Your task to perform on an android device: Toggle the flashlight Image 0: 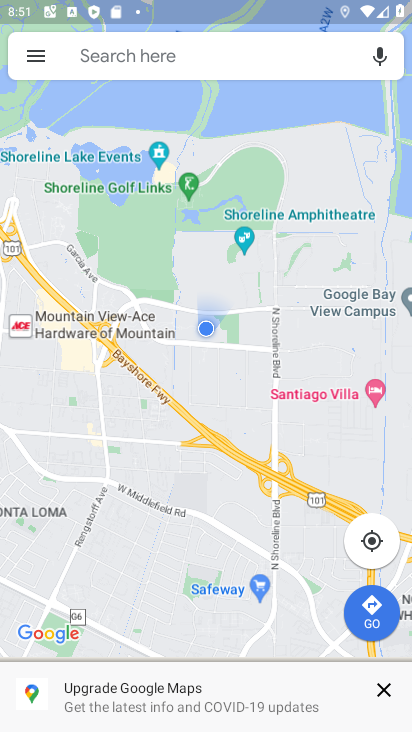
Step 0: press home button
Your task to perform on an android device: Toggle the flashlight Image 1: 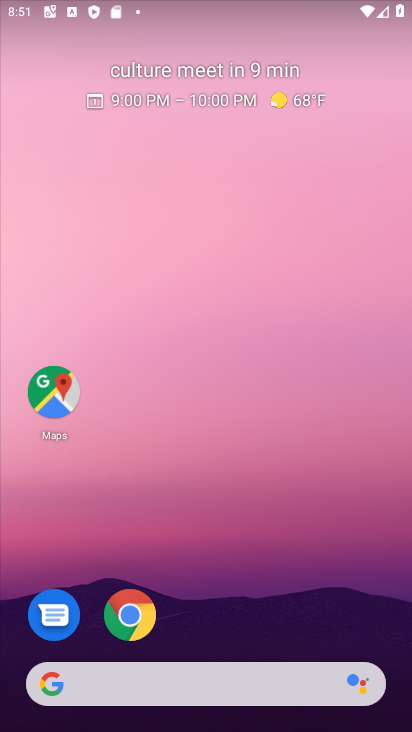
Step 1: drag from (393, 653) to (335, 11)
Your task to perform on an android device: Toggle the flashlight Image 2: 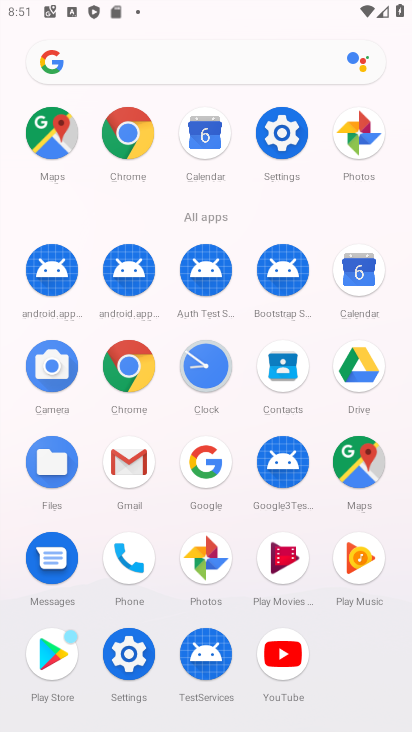
Step 2: click (289, 121)
Your task to perform on an android device: Toggle the flashlight Image 3: 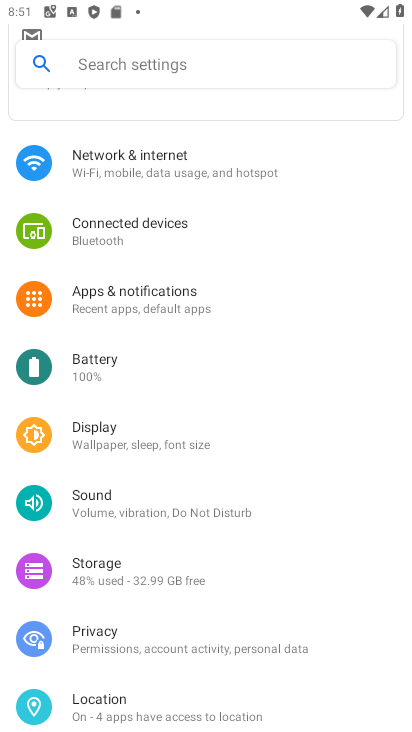
Step 3: click (115, 431)
Your task to perform on an android device: Toggle the flashlight Image 4: 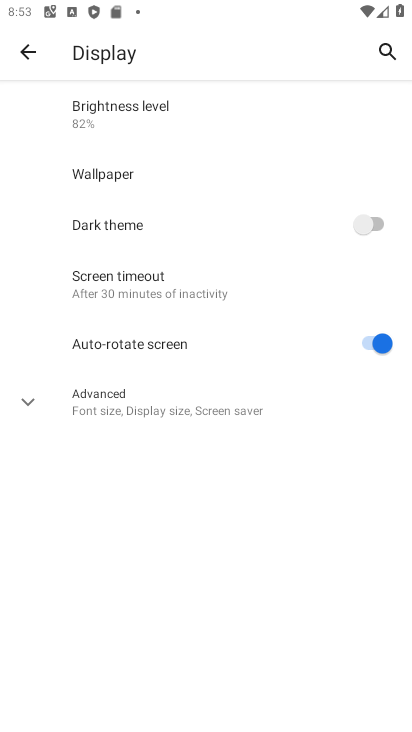
Step 4: task complete